Your task to perform on an android device: Open settings Image 0: 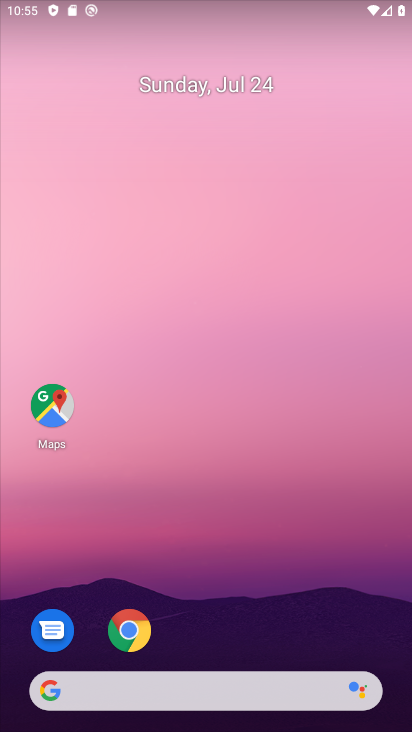
Step 0: drag from (178, 551) to (178, 15)
Your task to perform on an android device: Open settings Image 1: 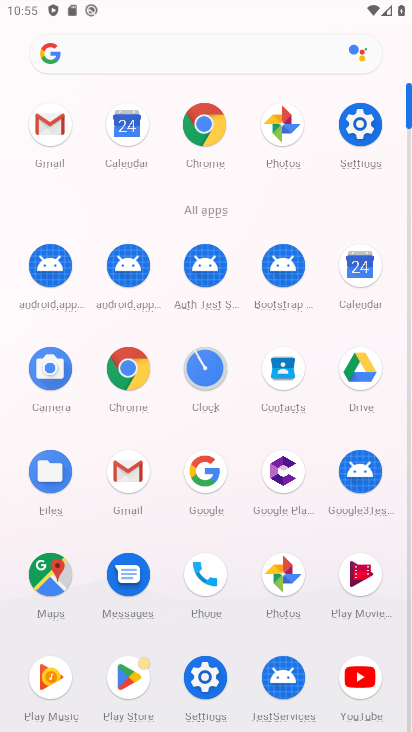
Step 1: click (359, 133)
Your task to perform on an android device: Open settings Image 2: 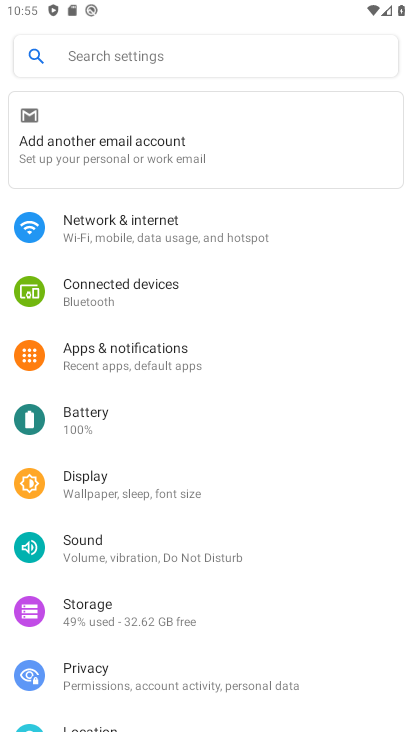
Step 2: task complete